Your task to perform on an android device: Open display settings Image 0: 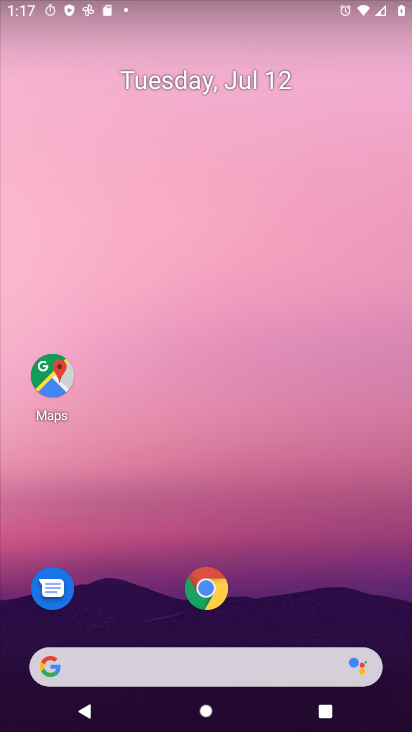
Step 0: press home button
Your task to perform on an android device: Open display settings Image 1: 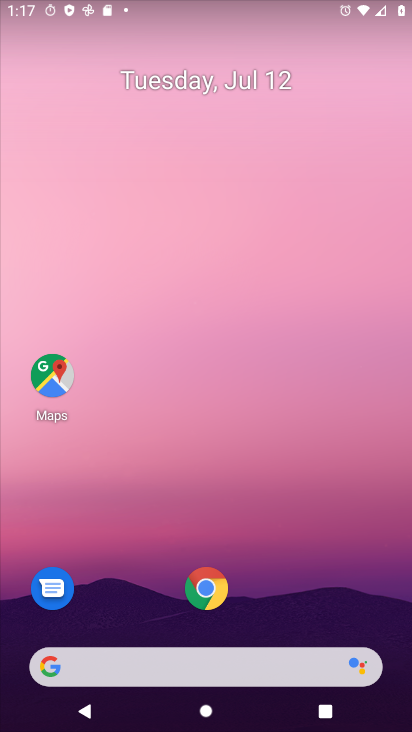
Step 1: drag from (118, 670) to (290, 0)
Your task to perform on an android device: Open display settings Image 2: 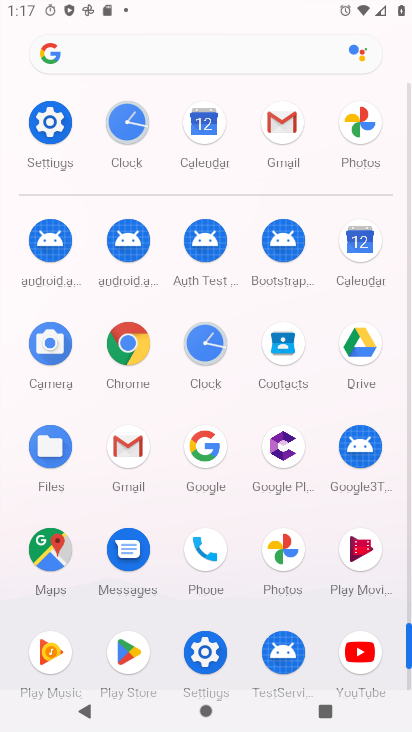
Step 2: click (38, 118)
Your task to perform on an android device: Open display settings Image 3: 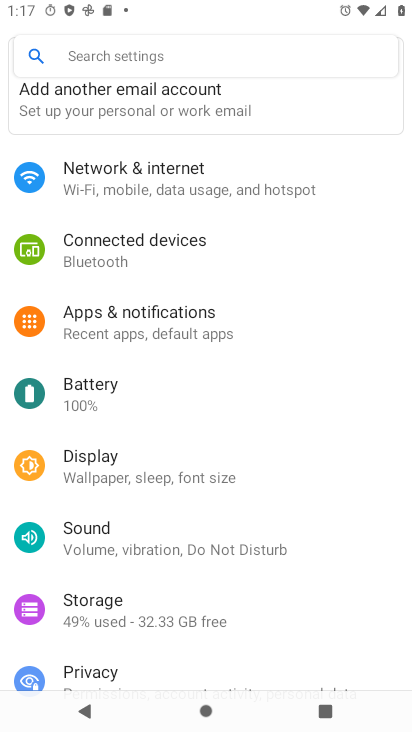
Step 3: click (120, 460)
Your task to perform on an android device: Open display settings Image 4: 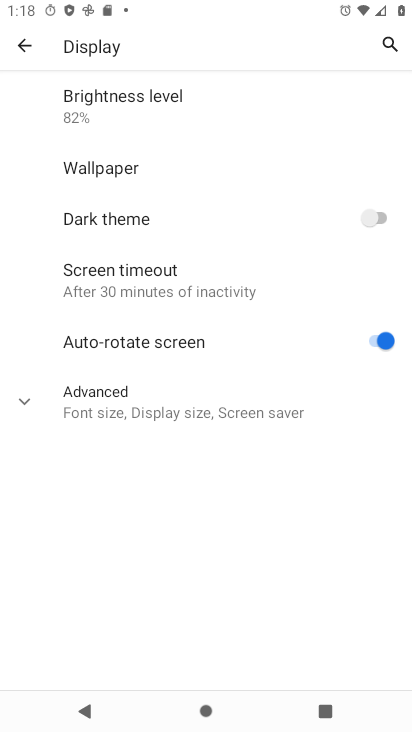
Step 4: task complete